Your task to perform on an android device: Do I have any events today? Image 0: 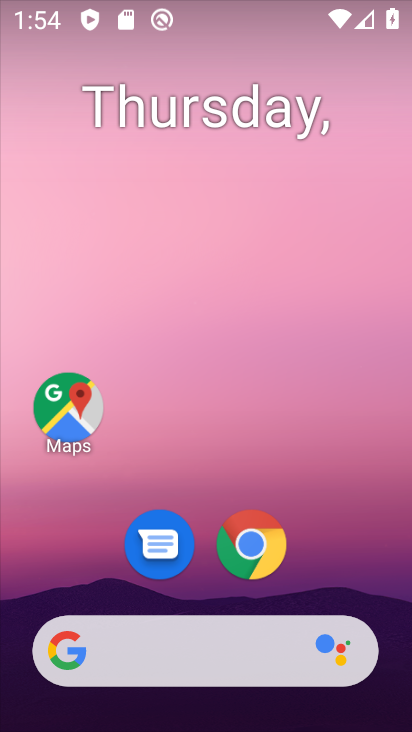
Step 0: drag from (332, 514) to (153, 201)
Your task to perform on an android device: Do I have any events today? Image 1: 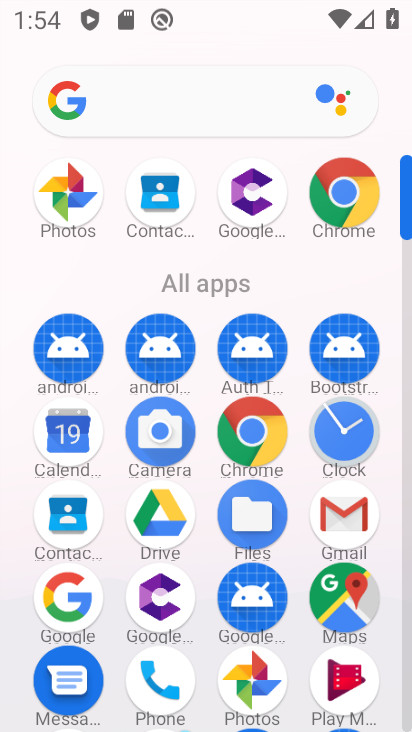
Step 1: click (82, 437)
Your task to perform on an android device: Do I have any events today? Image 2: 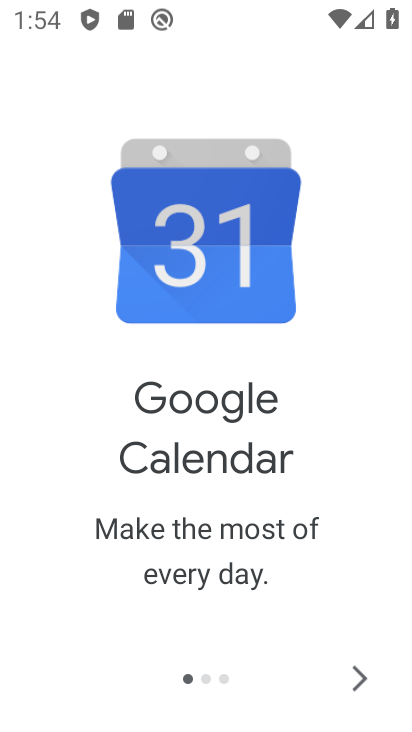
Step 2: click (352, 677)
Your task to perform on an android device: Do I have any events today? Image 3: 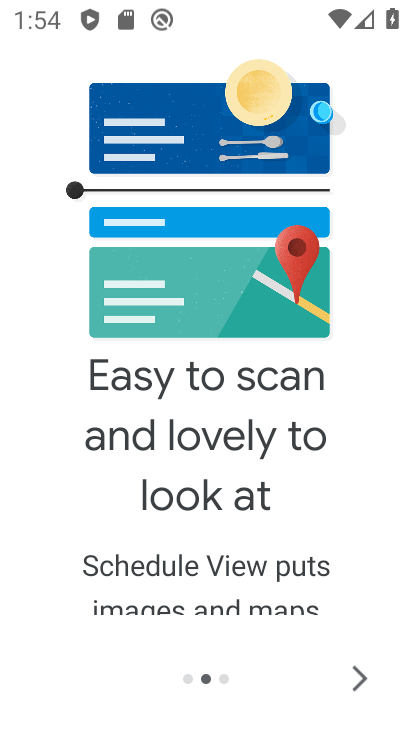
Step 3: click (352, 677)
Your task to perform on an android device: Do I have any events today? Image 4: 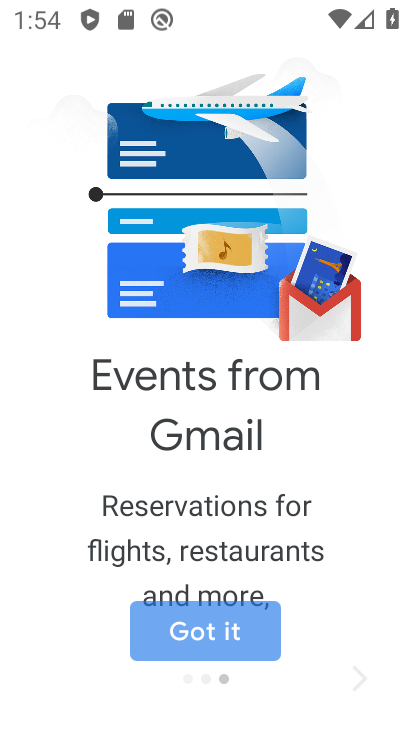
Step 4: click (352, 677)
Your task to perform on an android device: Do I have any events today? Image 5: 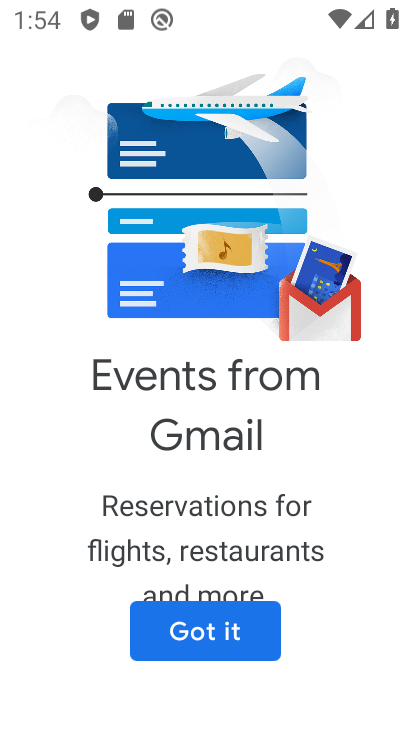
Step 5: click (181, 615)
Your task to perform on an android device: Do I have any events today? Image 6: 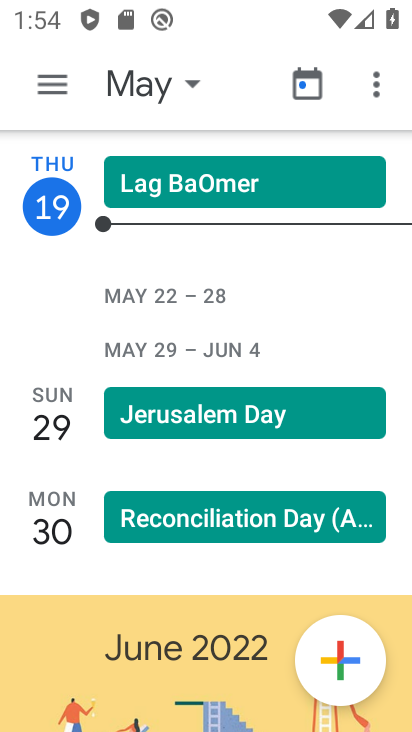
Step 6: click (148, 90)
Your task to perform on an android device: Do I have any events today? Image 7: 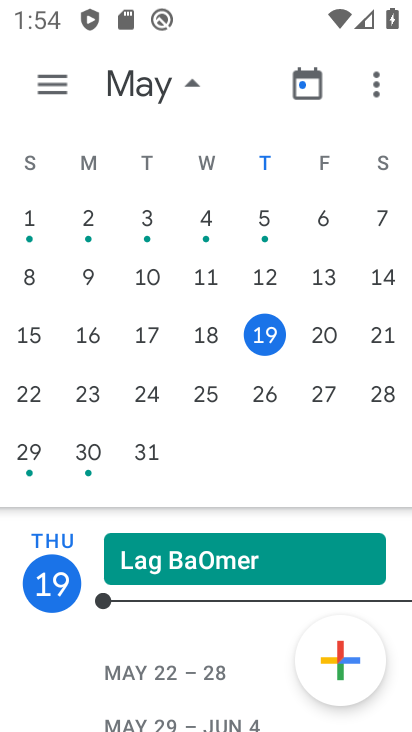
Step 7: click (61, 89)
Your task to perform on an android device: Do I have any events today? Image 8: 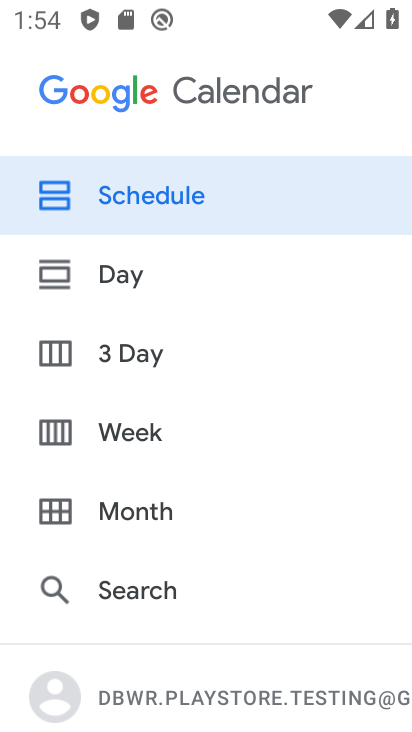
Step 8: click (115, 210)
Your task to perform on an android device: Do I have any events today? Image 9: 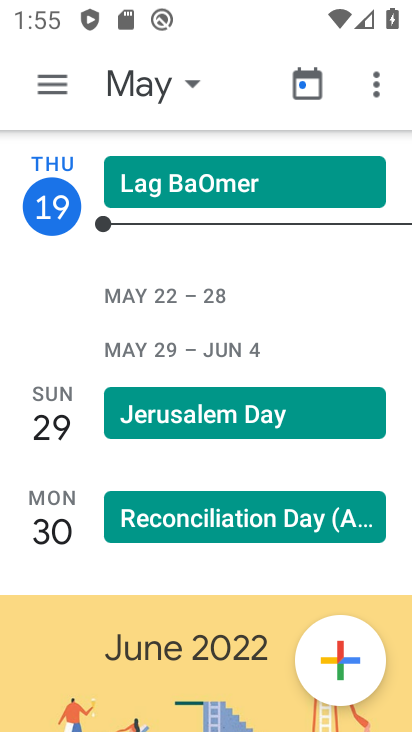
Step 9: task complete